Your task to perform on an android device: turn on airplane mode Image 0: 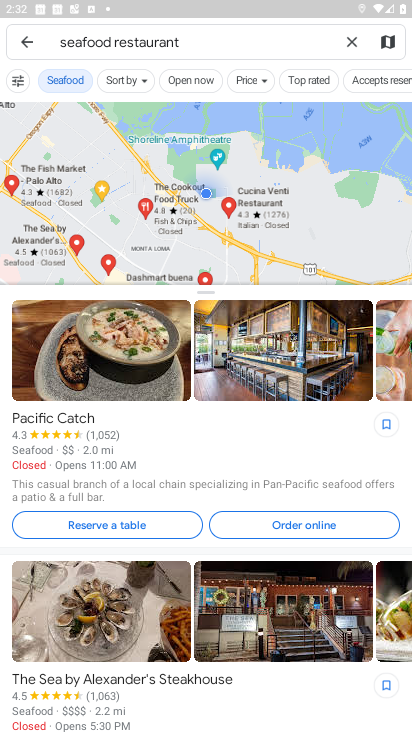
Step 0: press home button
Your task to perform on an android device: turn on airplane mode Image 1: 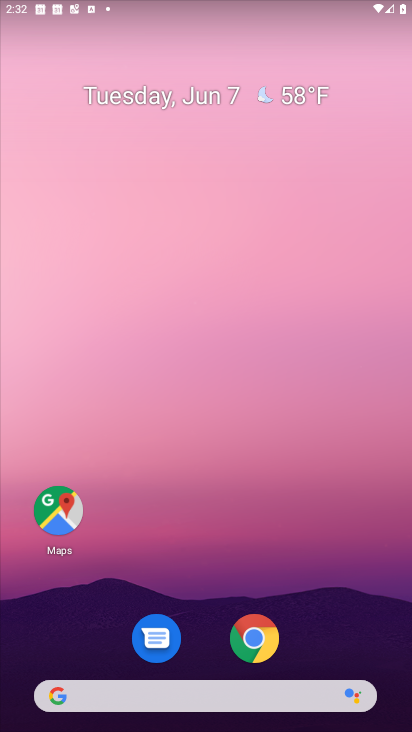
Step 1: drag from (204, 628) to (225, 224)
Your task to perform on an android device: turn on airplane mode Image 2: 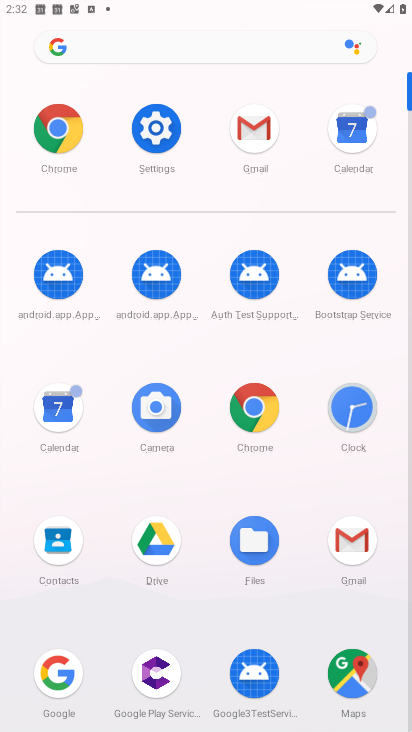
Step 2: click (149, 126)
Your task to perform on an android device: turn on airplane mode Image 3: 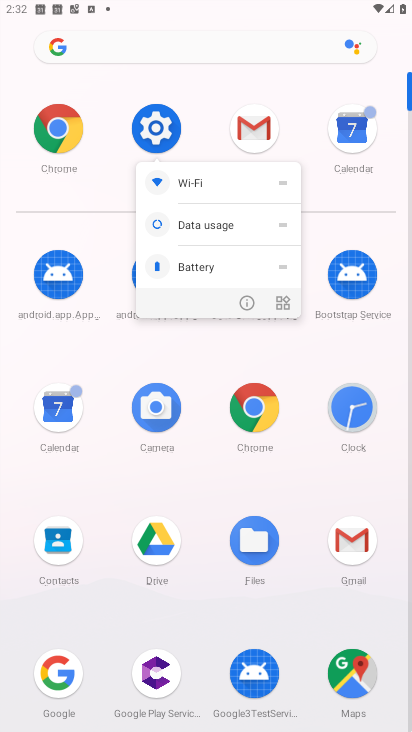
Step 3: click (160, 132)
Your task to perform on an android device: turn on airplane mode Image 4: 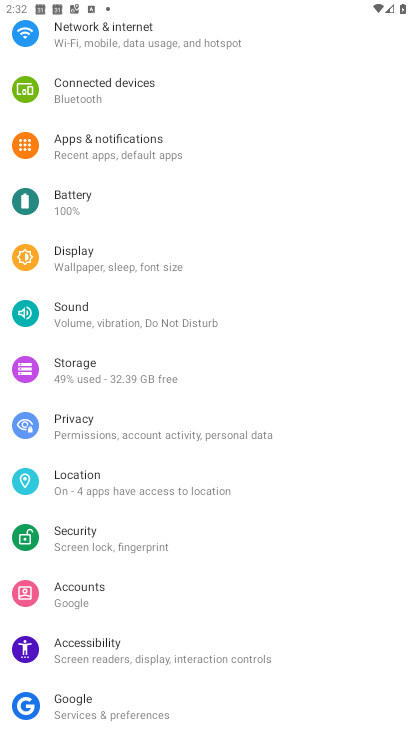
Step 4: drag from (171, 107) to (133, 540)
Your task to perform on an android device: turn on airplane mode Image 5: 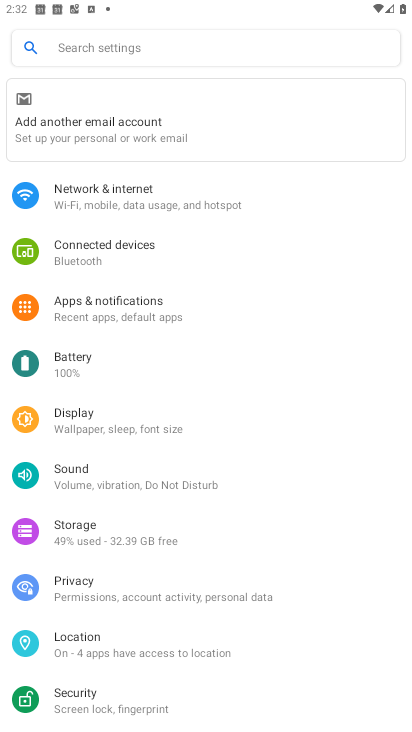
Step 5: click (138, 202)
Your task to perform on an android device: turn on airplane mode Image 6: 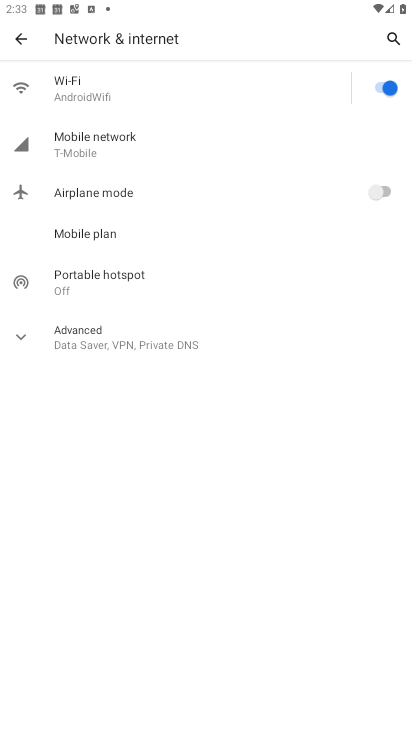
Step 6: click (364, 190)
Your task to perform on an android device: turn on airplane mode Image 7: 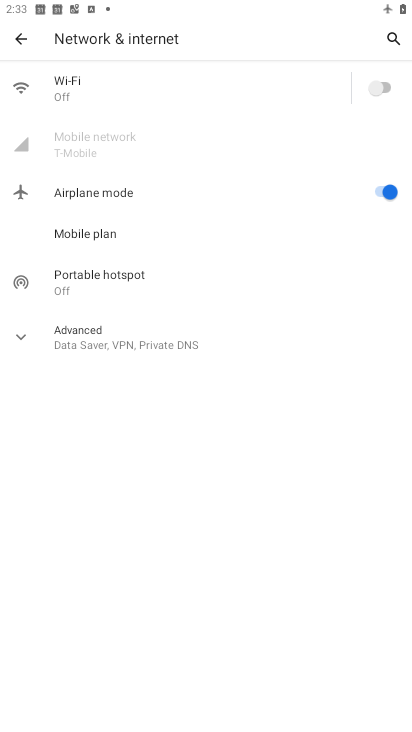
Step 7: task complete